Your task to perform on an android device: Open Youtube and go to the subscriptions tab Image 0: 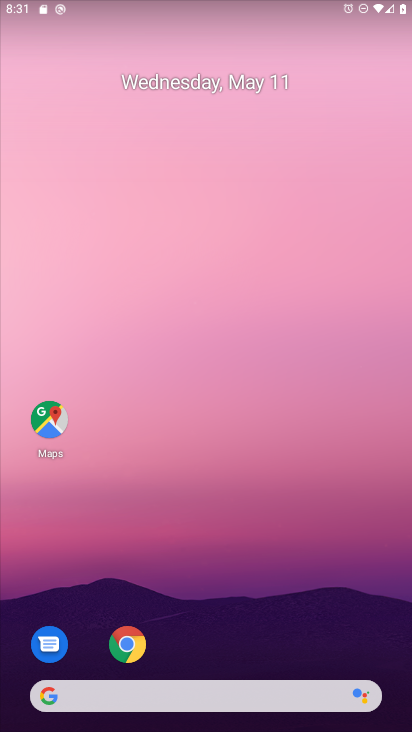
Step 0: drag from (223, 578) to (120, 23)
Your task to perform on an android device: Open Youtube and go to the subscriptions tab Image 1: 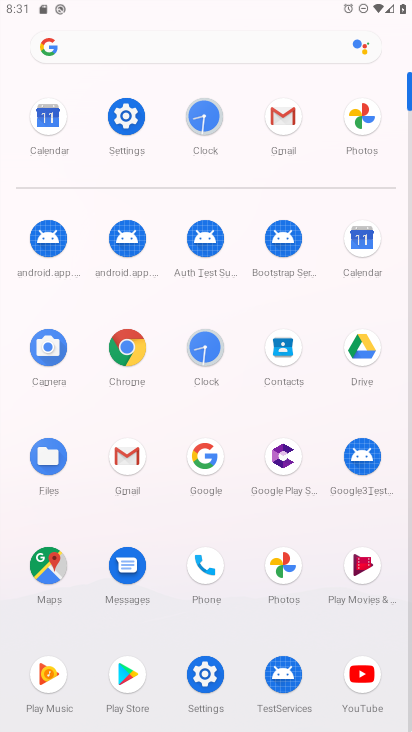
Step 1: click (358, 674)
Your task to perform on an android device: Open Youtube and go to the subscriptions tab Image 2: 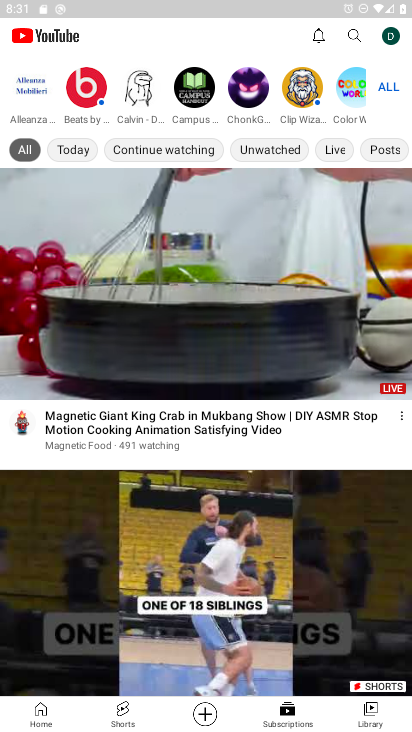
Step 2: click (286, 714)
Your task to perform on an android device: Open Youtube and go to the subscriptions tab Image 3: 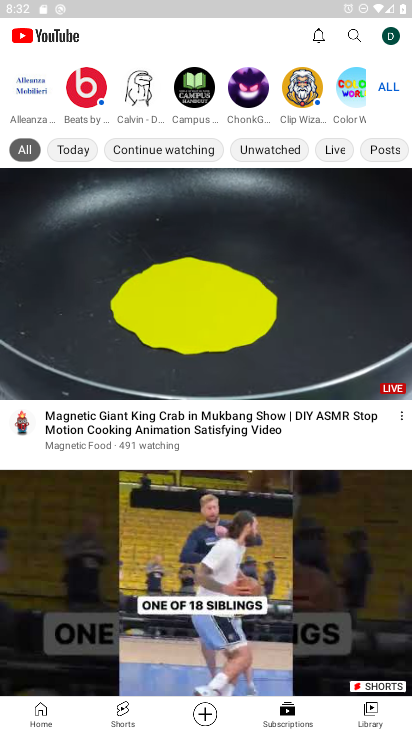
Step 3: click (288, 713)
Your task to perform on an android device: Open Youtube and go to the subscriptions tab Image 4: 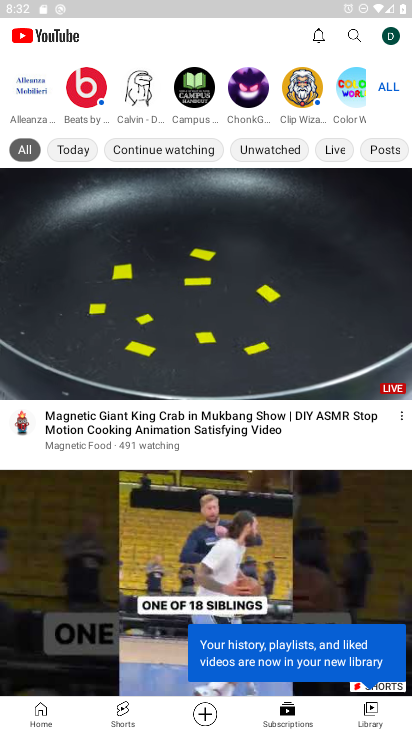
Step 4: click (288, 713)
Your task to perform on an android device: Open Youtube and go to the subscriptions tab Image 5: 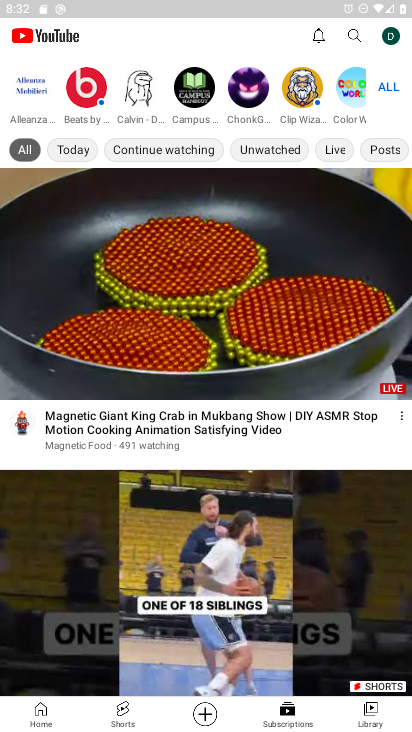
Step 5: task complete